Your task to perform on an android device: refresh tabs in the chrome app Image 0: 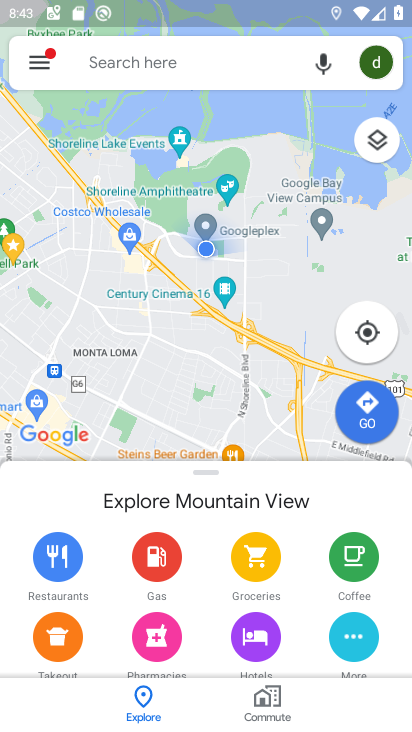
Step 0: drag from (273, 427) to (162, 0)
Your task to perform on an android device: refresh tabs in the chrome app Image 1: 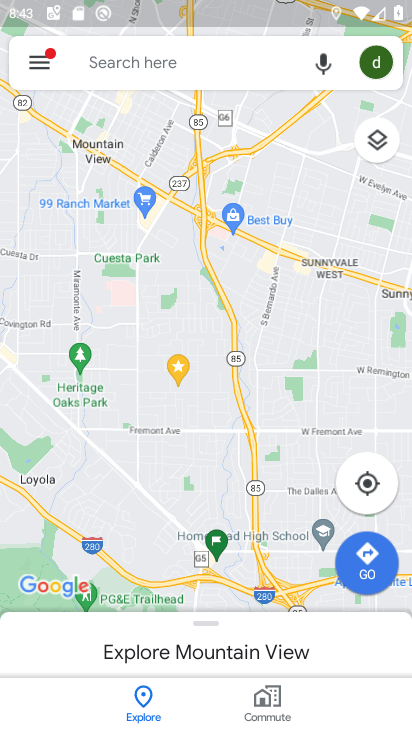
Step 1: press back button
Your task to perform on an android device: refresh tabs in the chrome app Image 2: 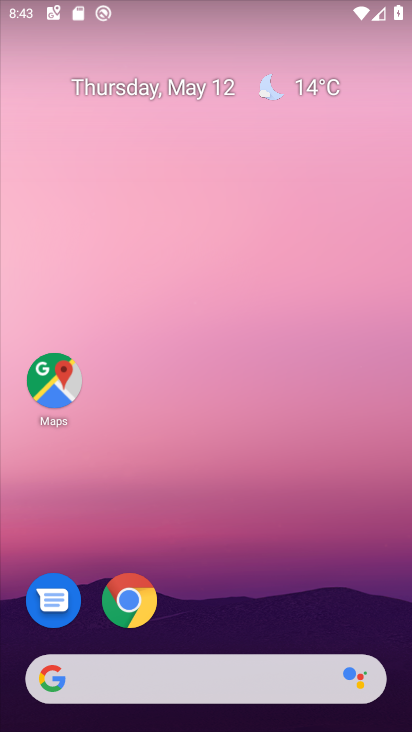
Step 2: drag from (243, 672) to (136, 41)
Your task to perform on an android device: refresh tabs in the chrome app Image 3: 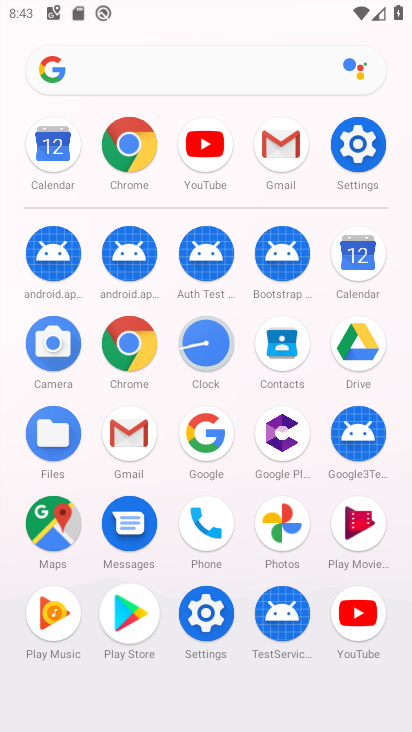
Step 3: click (127, 149)
Your task to perform on an android device: refresh tabs in the chrome app Image 4: 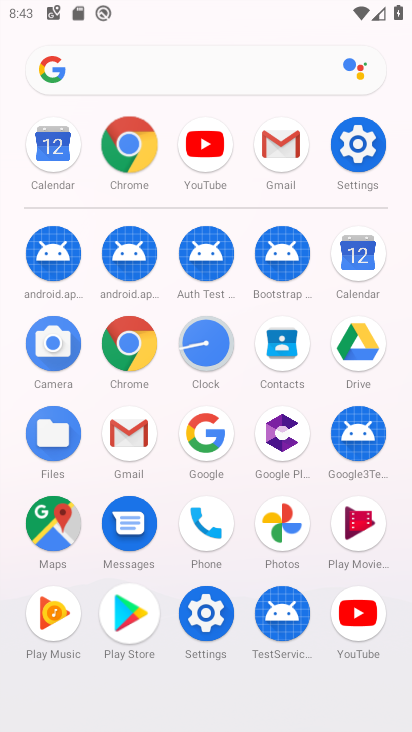
Step 4: click (127, 149)
Your task to perform on an android device: refresh tabs in the chrome app Image 5: 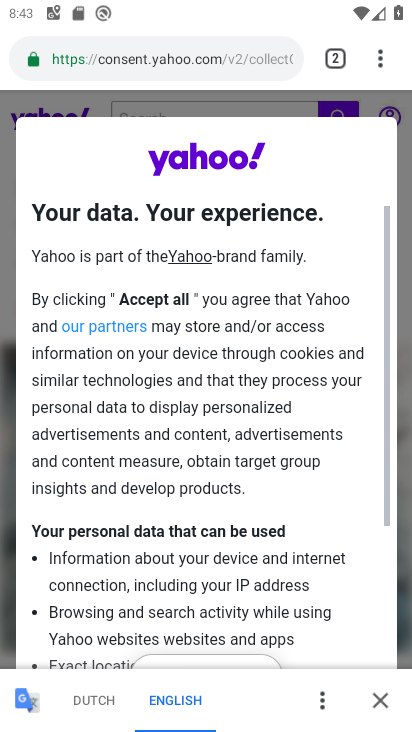
Step 5: click (378, 62)
Your task to perform on an android device: refresh tabs in the chrome app Image 6: 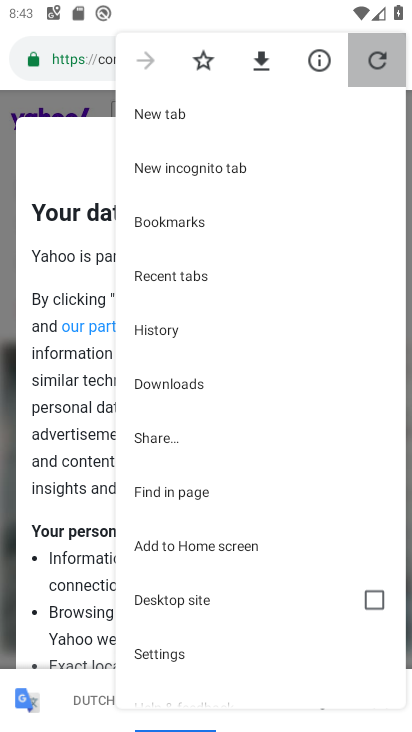
Step 6: click (371, 58)
Your task to perform on an android device: refresh tabs in the chrome app Image 7: 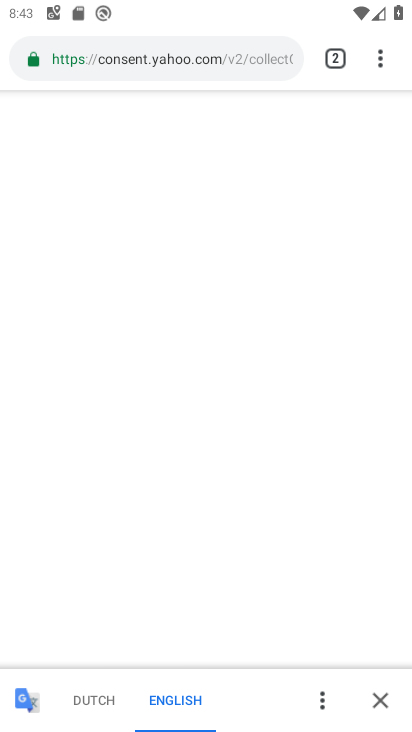
Step 7: task complete